Your task to perform on an android device: Open ESPN.com Image 0: 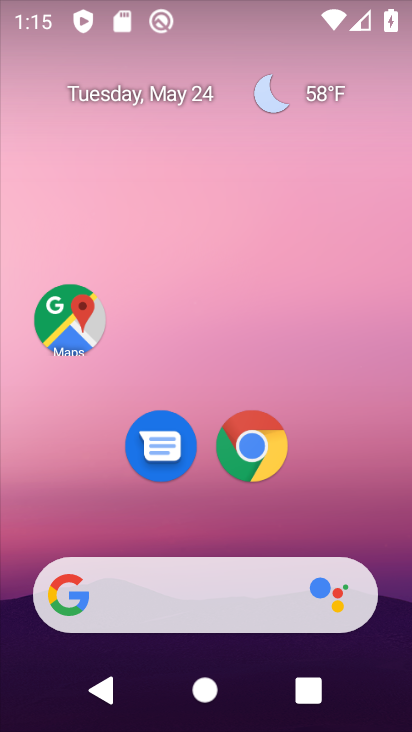
Step 0: click (271, 453)
Your task to perform on an android device: Open ESPN.com Image 1: 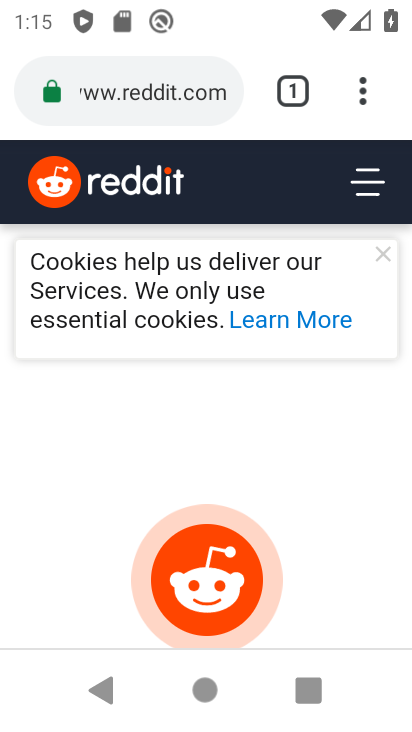
Step 1: click (212, 108)
Your task to perform on an android device: Open ESPN.com Image 2: 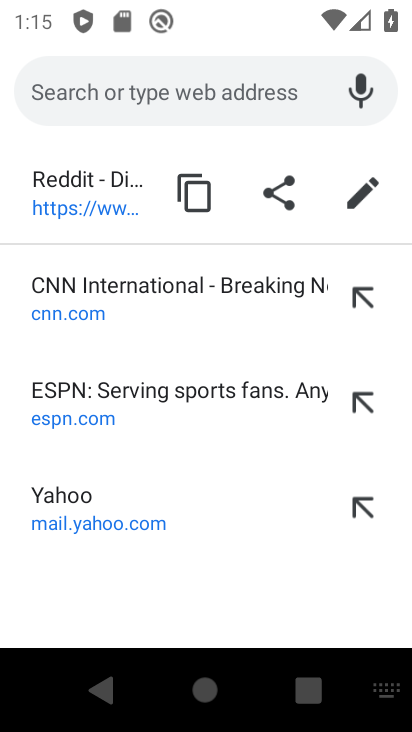
Step 2: click (203, 395)
Your task to perform on an android device: Open ESPN.com Image 3: 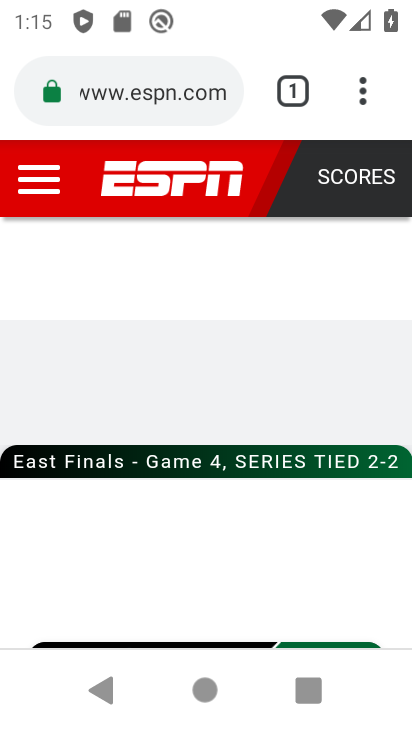
Step 3: task complete